Your task to perform on an android device: choose inbox layout in the gmail app Image 0: 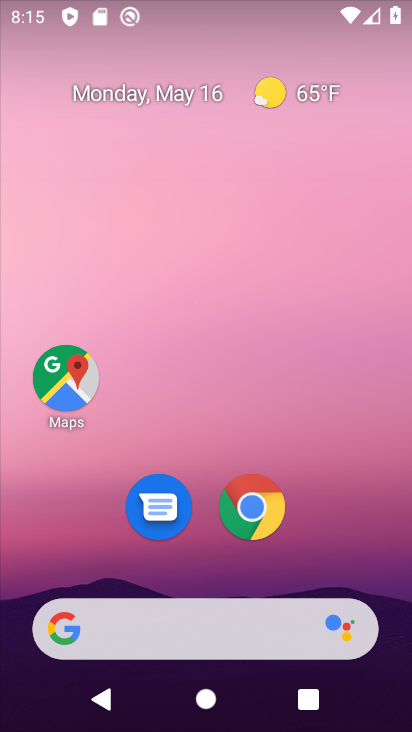
Step 0: drag from (213, 580) to (360, 17)
Your task to perform on an android device: choose inbox layout in the gmail app Image 1: 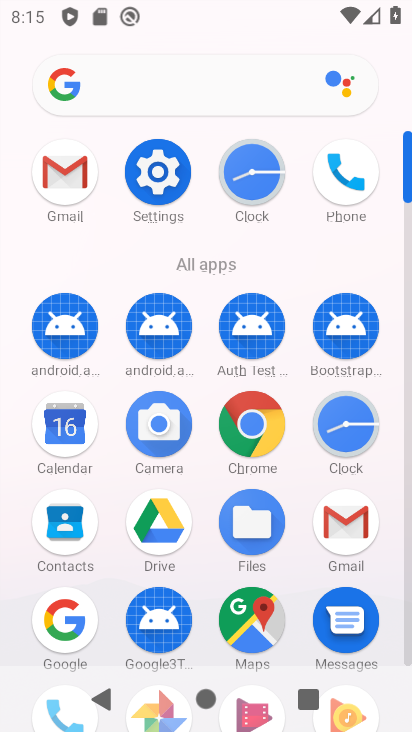
Step 1: click (313, 505)
Your task to perform on an android device: choose inbox layout in the gmail app Image 2: 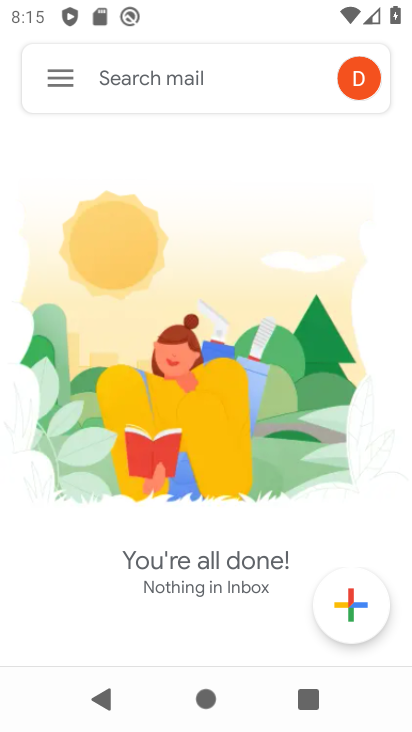
Step 2: click (55, 65)
Your task to perform on an android device: choose inbox layout in the gmail app Image 3: 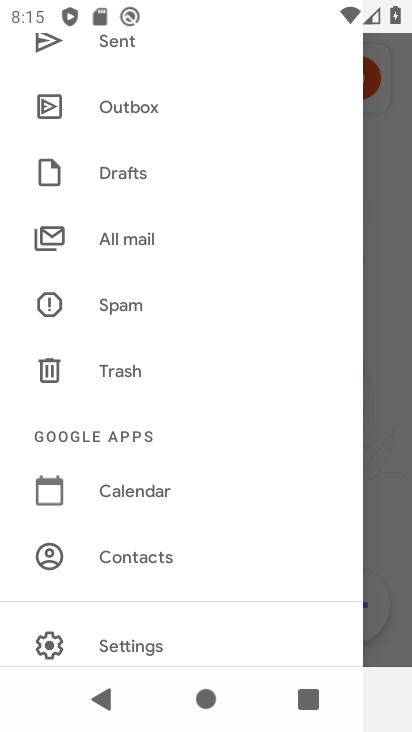
Step 3: drag from (132, 511) to (142, 730)
Your task to perform on an android device: choose inbox layout in the gmail app Image 4: 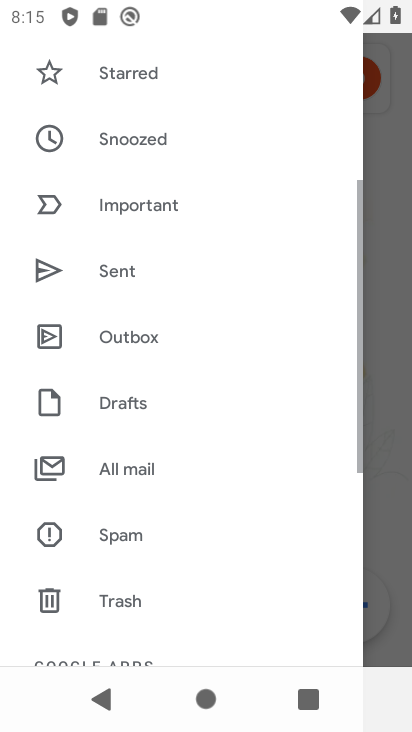
Step 4: drag from (148, 203) to (181, 461)
Your task to perform on an android device: choose inbox layout in the gmail app Image 5: 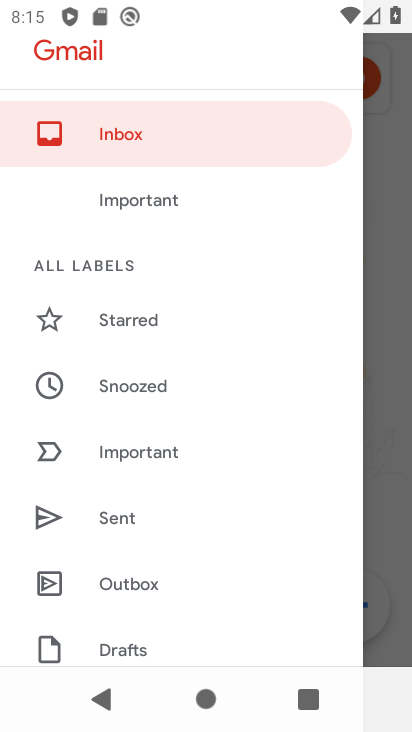
Step 5: click (136, 94)
Your task to perform on an android device: choose inbox layout in the gmail app Image 6: 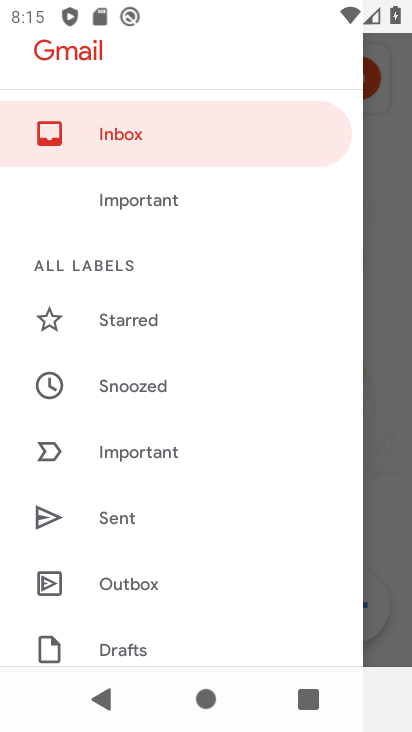
Step 6: click (147, 137)
Your task to perform on an android device: choose inbox layout in the gmail app Image 7: 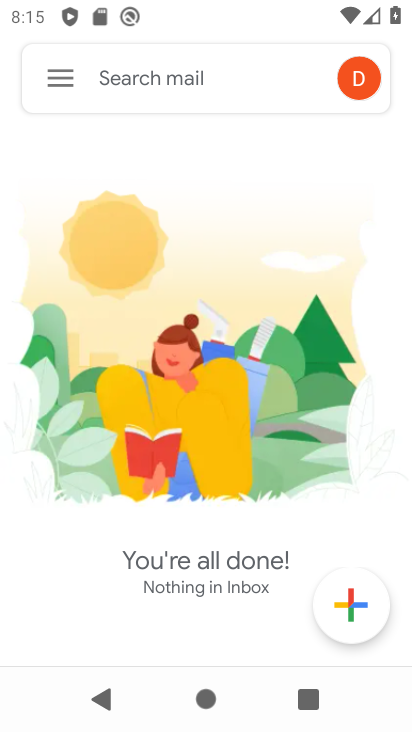
Step 7: task complete